Your task to perform on an android device: change notifications settings Image 0: 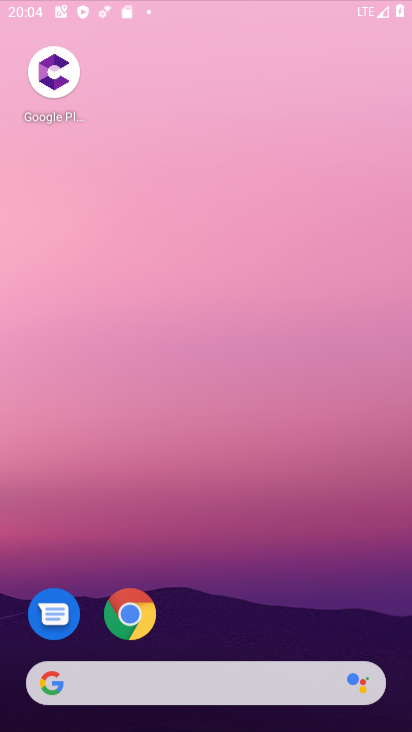
Step 0: click (323, 90)
Your task to perform on an android device: change notifications settings Image 1: 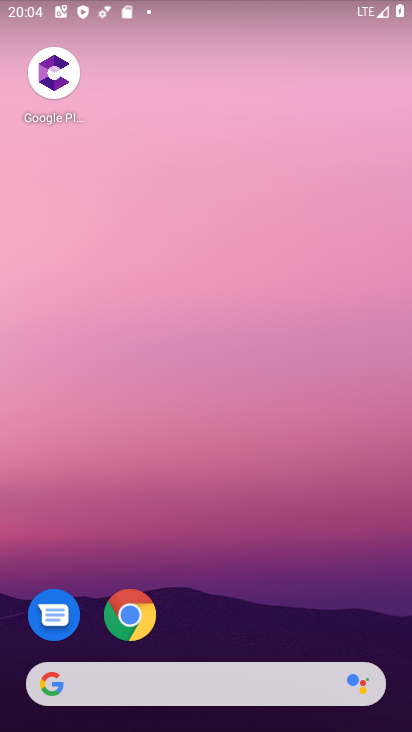
Step 1: drag from (205, 638) to (272, 112)
Your task to perform on an android device: change notifications settings Image 2: 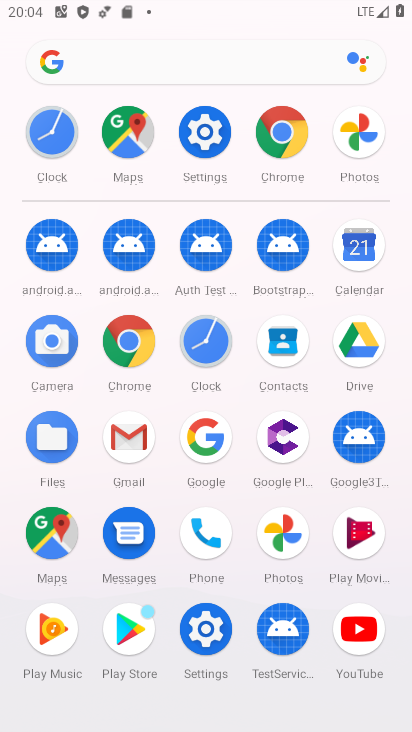
Step 2: click (208, 620)
Your task to perform on an android device: change notifications settings Image 3: 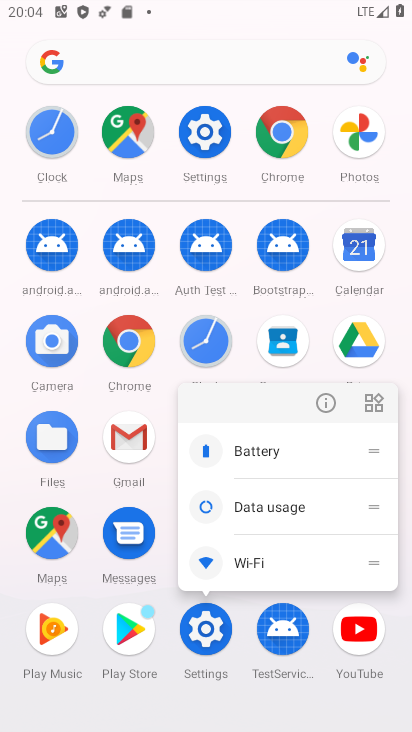
Step 3: click (322, 409)
Your task to perform on an android device: change notifications settings Image 4: 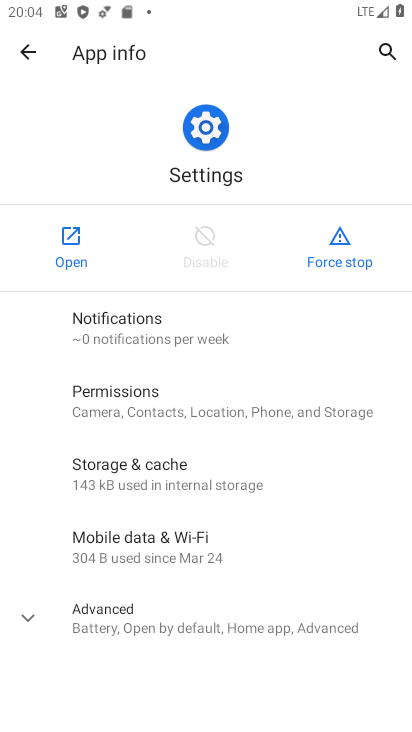
Step 4: click (76, 239)
Your task to perform on an android device: change notifications settings Image 5: 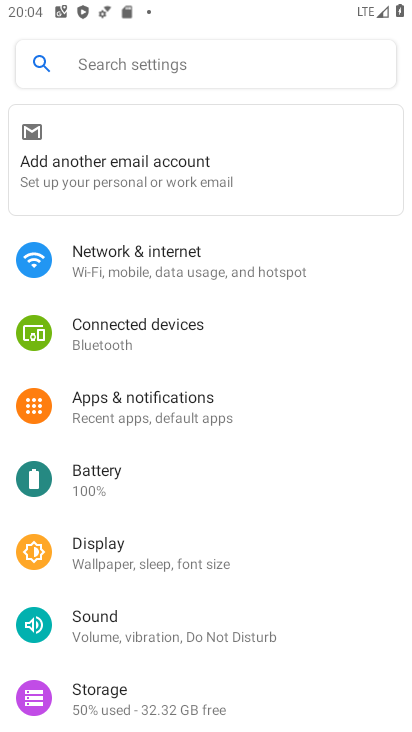
Step 5: click (174, 407)
Your task to perform on an android device: change notifications settings Image 6: 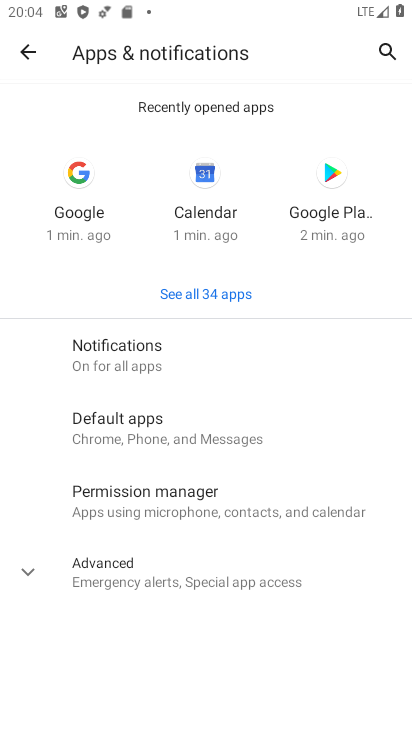
Step 6: click (190, 340)
Your task to perform on an android device: change notifications settings Image 7: 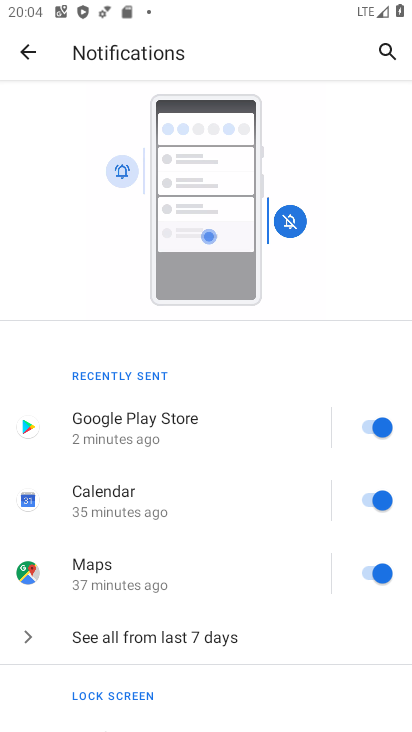
Step 7: drag from (202, 589) to (279, 162)
Your task to perform on an android device: change notifications settings Image 8: 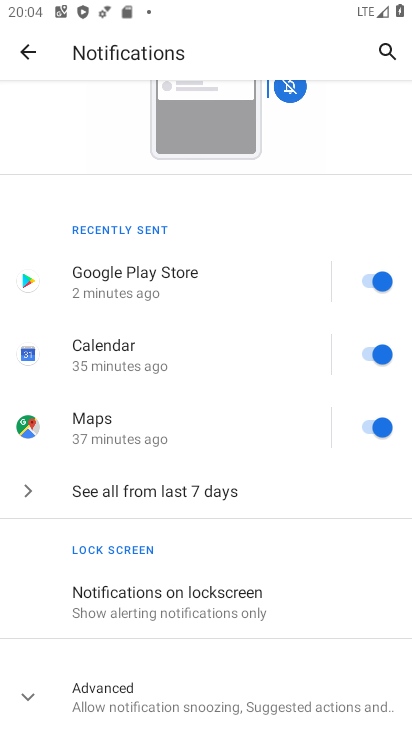
Step 8: click (382, 337)
Your task to perform on an android device: change notifications settings Image 9: 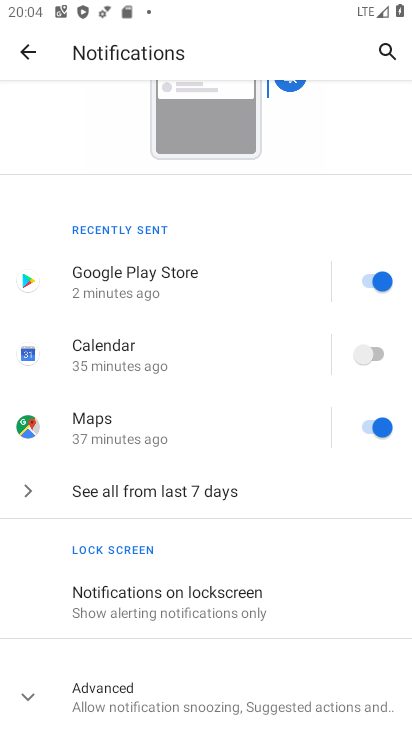
Step 9: task complete